Your task to perform on an android device: all mails in gmail Image 0: 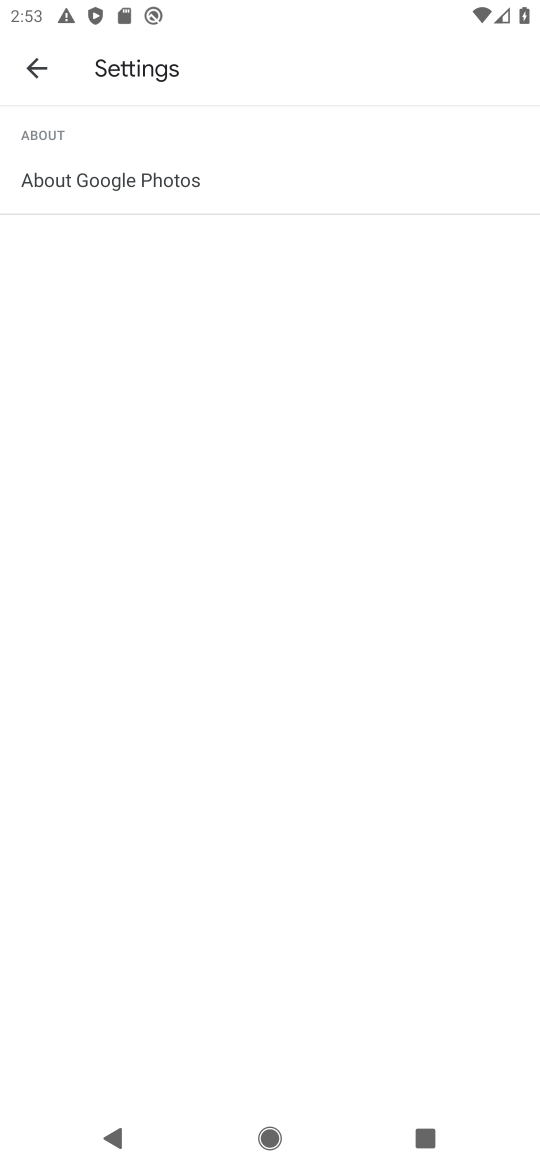
Step 0: press home button
Your task to perform on an android device: all mails in gmail Image 1: 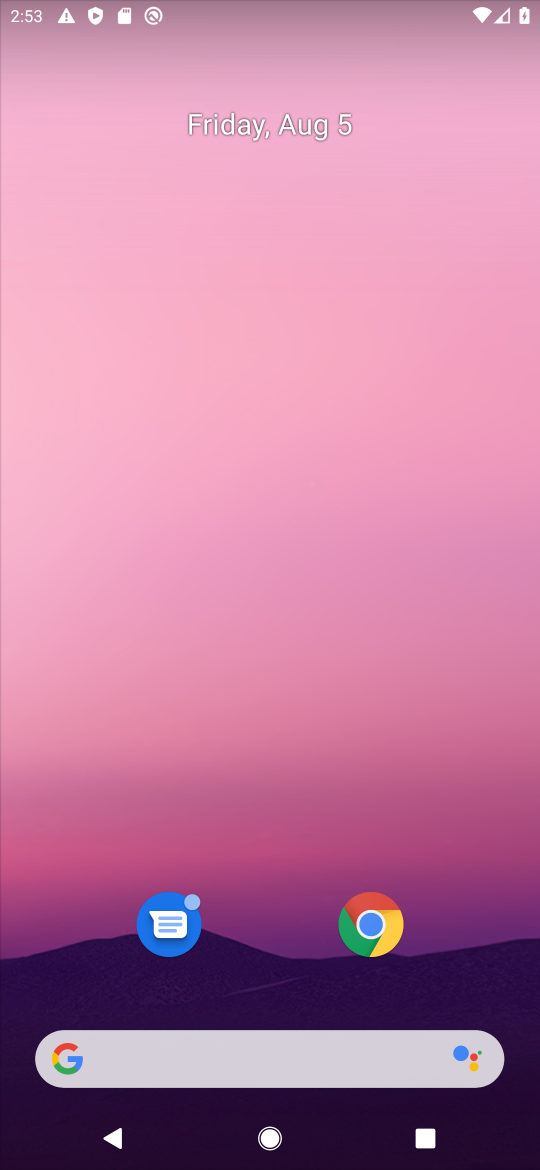
Step 1: drag from (268, 851) to (283, 136)
Your task to perform on an android device: all mails in gmail Image 2: 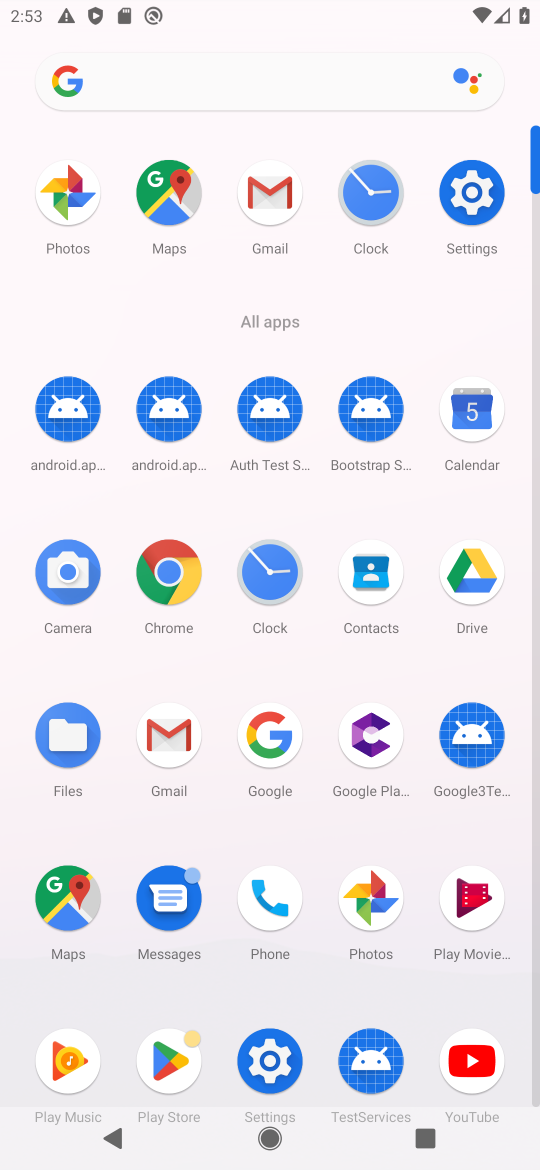
Step 2: click (167, 733)
Your task to perform on an android device: all mails in gmail Image 3: 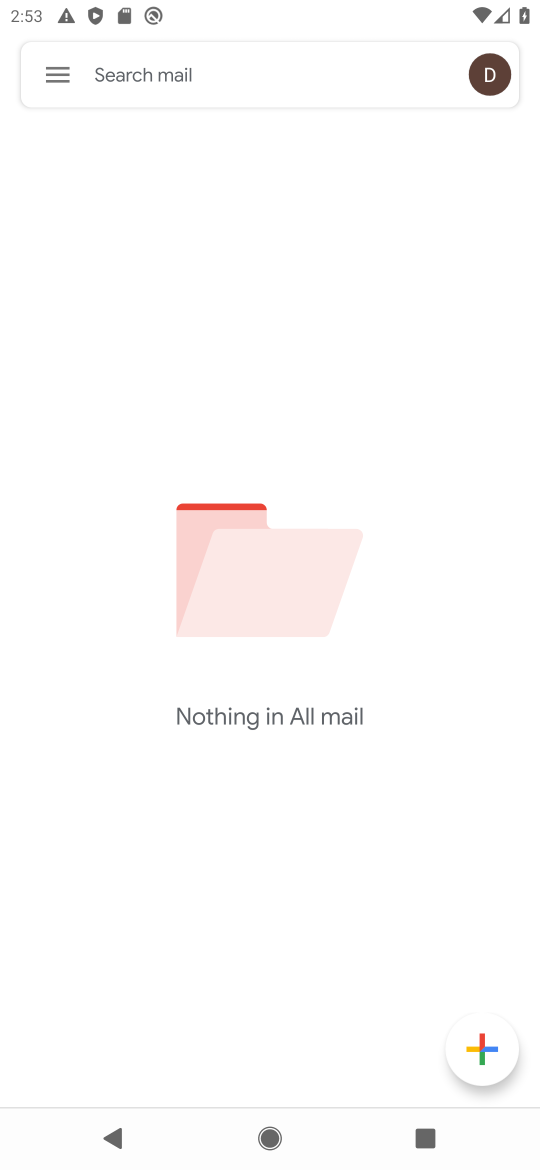
Step 3: task complete